Your task to perform on an android device: turn notification dots off Image 0: 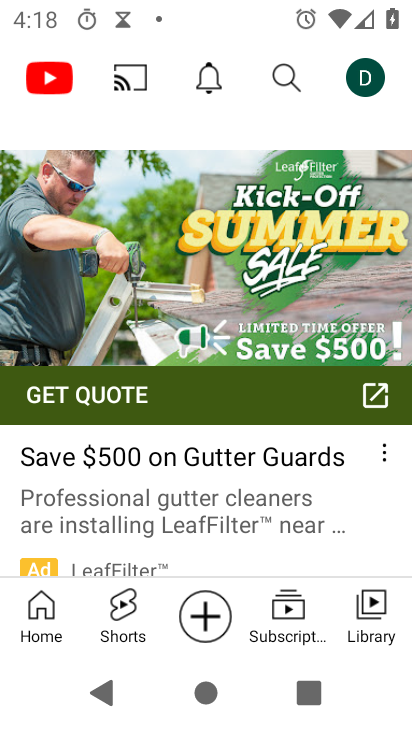
Step 0: drag from (268, 512) to (262, 295)
Your task to perform on an android device: turn notification dots off Image 1: 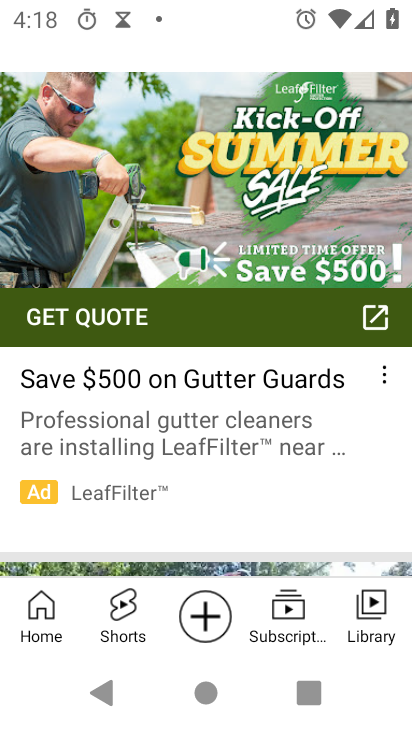
Step 1: press home button
Your task to perform on an android device: turn notification dots off Image 2: 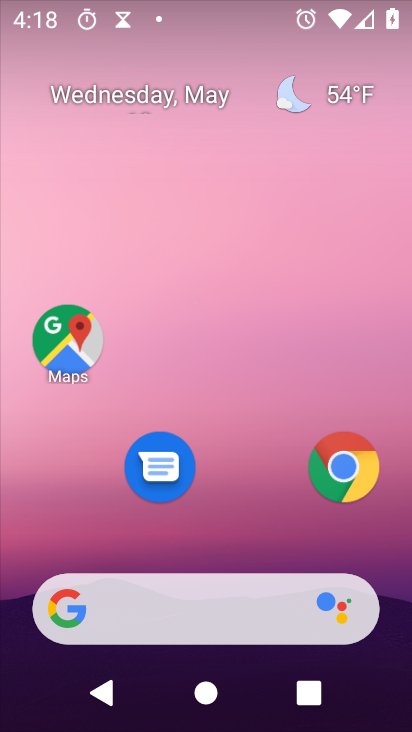
Step 2: drag from (273, 517) to (177, 164)
Your task to perform on an android device: turn notification dots off Image 3: 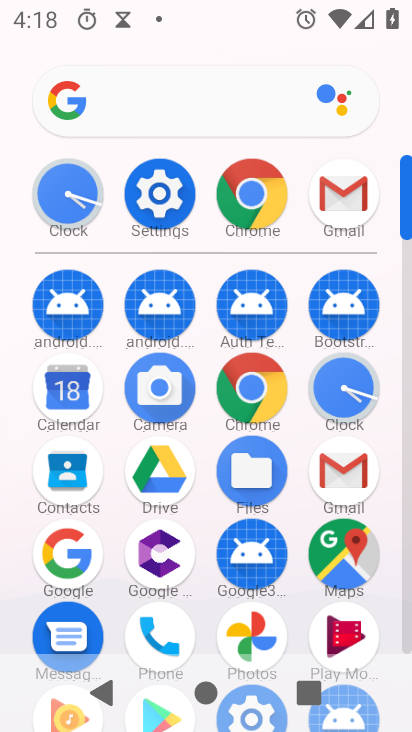
Step 3: click (174, 210)
Your task to perform on an android device: turn notification dots off Image 4: 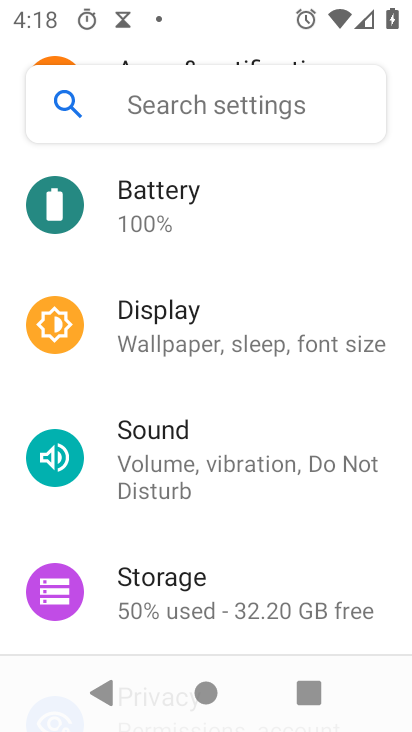
Step 4: drag from (337, 530) to (410, 590)
Your task to perform on an android device: turn notification dots off Image 5: 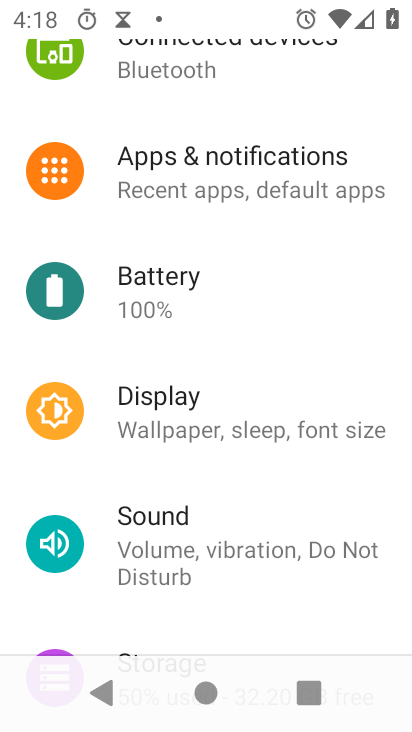
Step 5: click (298, 207)
Your task to perform on an android device: turn notification dots off Image 6: 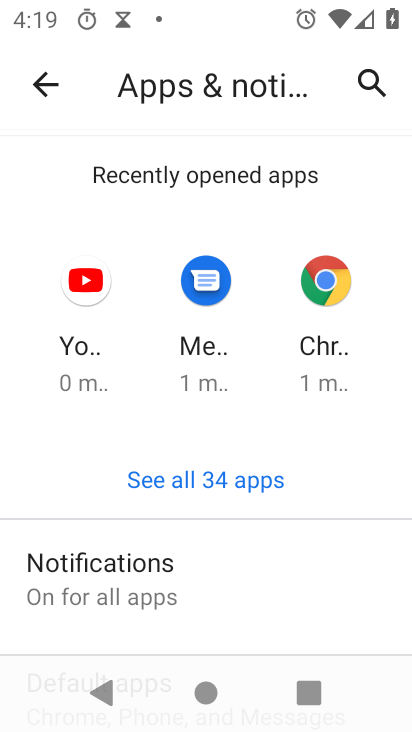
Step 6: click (257, 602)
Your task to perform on an android device: turn notification dots off Image 7: 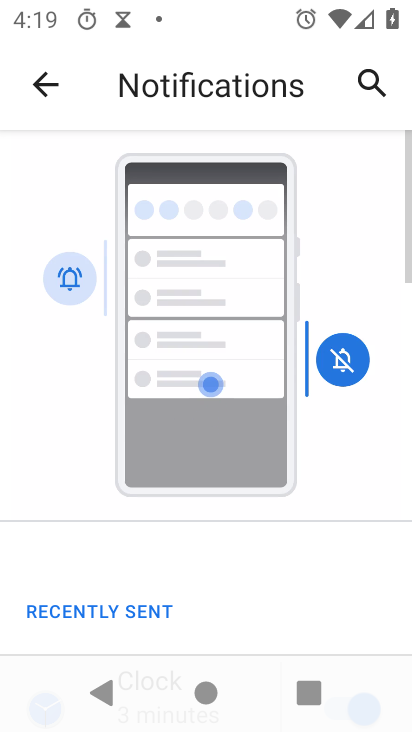
Step 7: drag from (257, 602) to (174, 37)
Your task to perform on an android device: turn notification dots off Image 8: 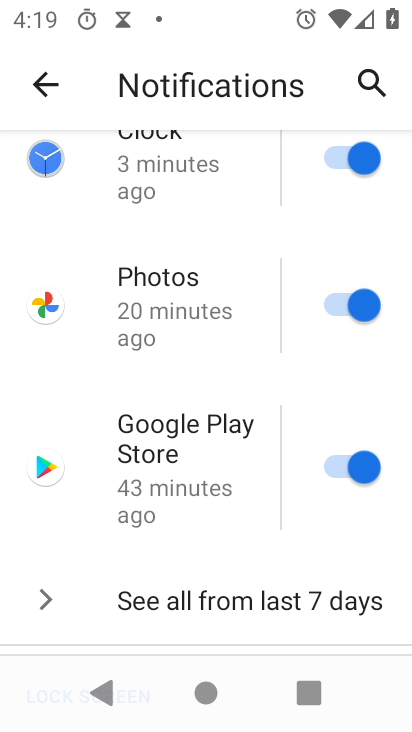
Step 8: drag from (223, 494) to (241, 129)
Your task to perform on an android device: turn notification dots off Image 9: 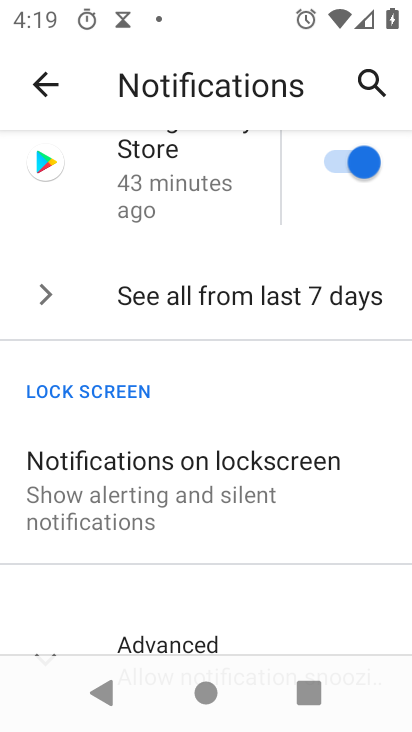
Step 9: drag from (270, 604) to (254, 357)
Your task to perform on an android device: turn notification dots off Image 10: 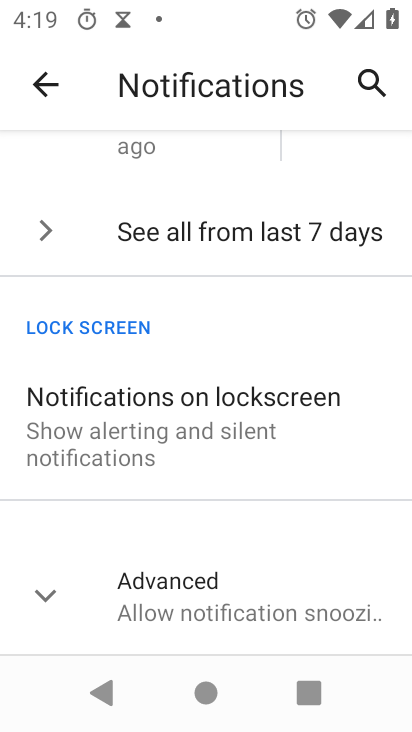
Step 10: click (270, 595)
Your task to perform on an android device: turn notification dots off Image 11: 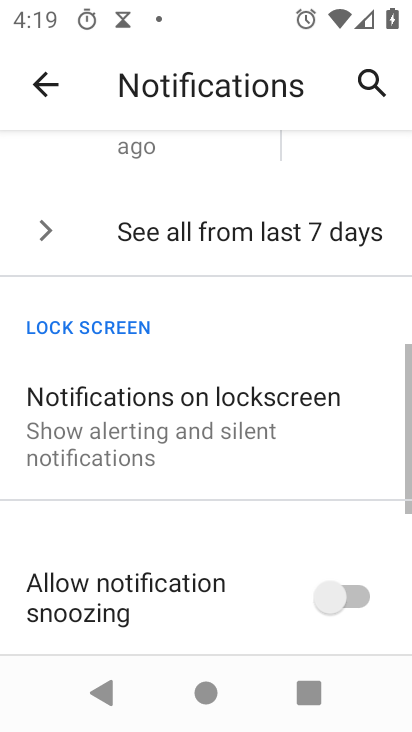
Step 11: task complete